Your task to perform on an android device: View the shopping cart on walmart.com. Add corsair k70 to the cart on walmart.com, then select checkout. Image 0: 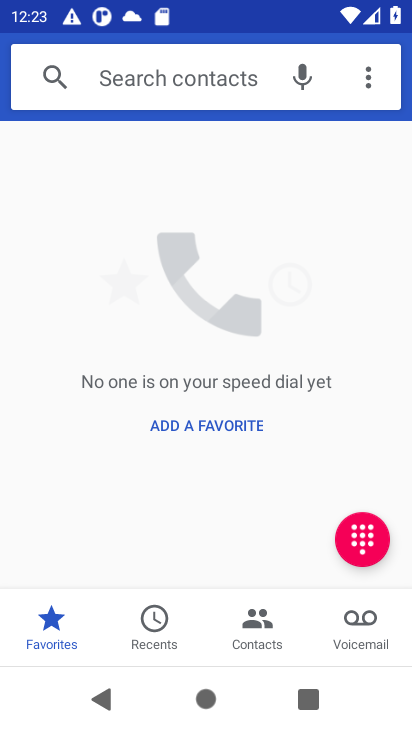
Step 0: press home button
Your task to perform on an android device: View the shopping cart on walmart.com. Add corsair k70 to the cart on walmart.com, then select checkout. Image 1: 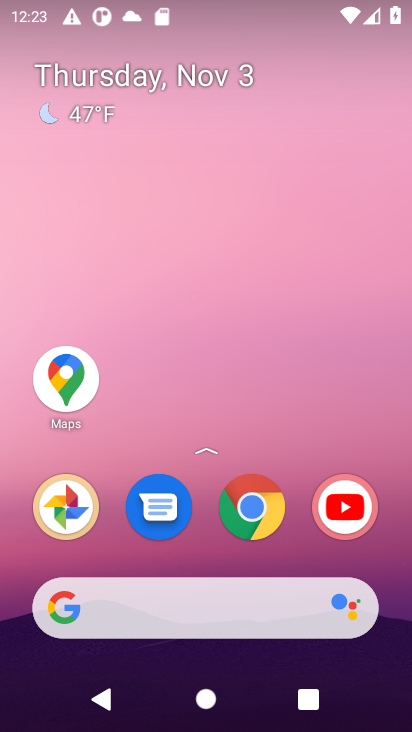
Step 1: click (276, 605)
Your task to perform on an android device: View the shopping cart on walmart.com. Add corsair k70 to the cart on walmart.com, then select checkout. Image 2: 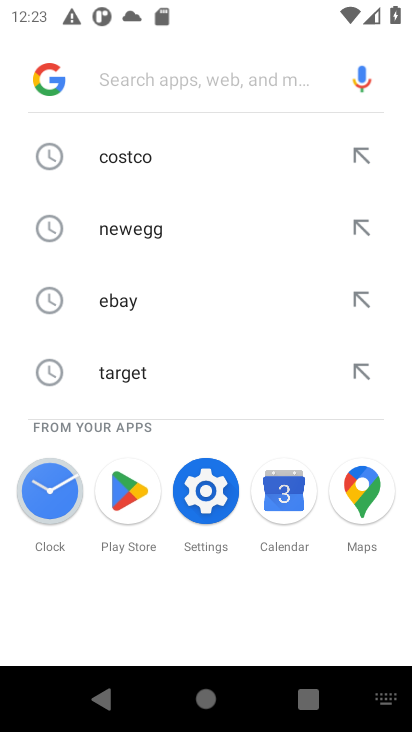
Step 2: type "walmart"
Your task to perform on an android device: View the shopping cart on walmart.com. Add corsair k70 to the cart on walmart.com, then select checkout. Image 3: 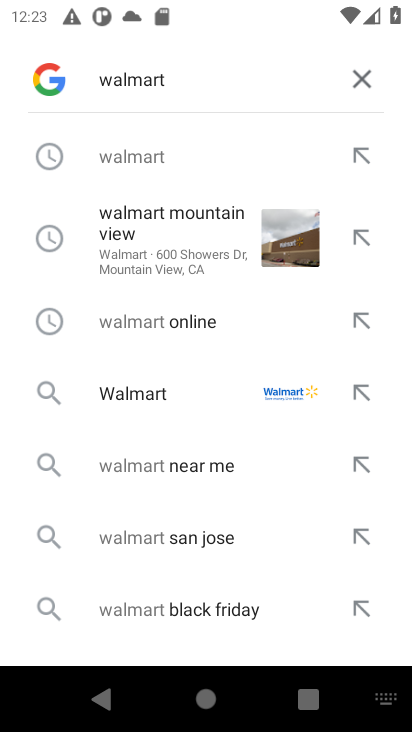
Step 3: click (214, 176)
Your task to perform on an android device: View the shopping cart on walmart.com. Add corsair k70 to the cart on walmart.com, then select checkout. Image 4: 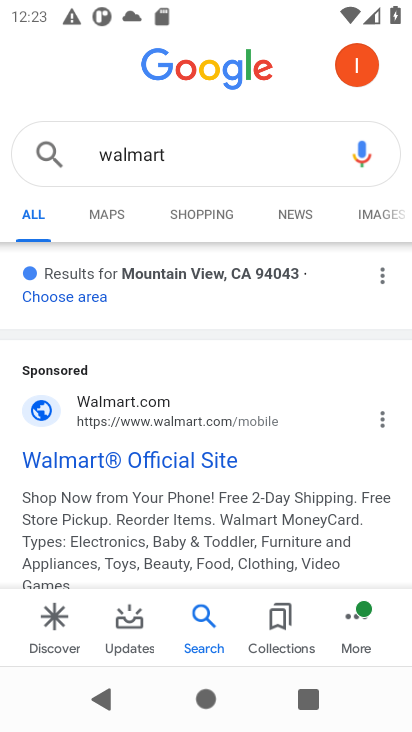
Step 4: click (118, 453)
Your task to perform on an android device: View the shopping cart on walmart.com. Add corsair k70 to the cart on walmart.com, then select checkout. Image 5: 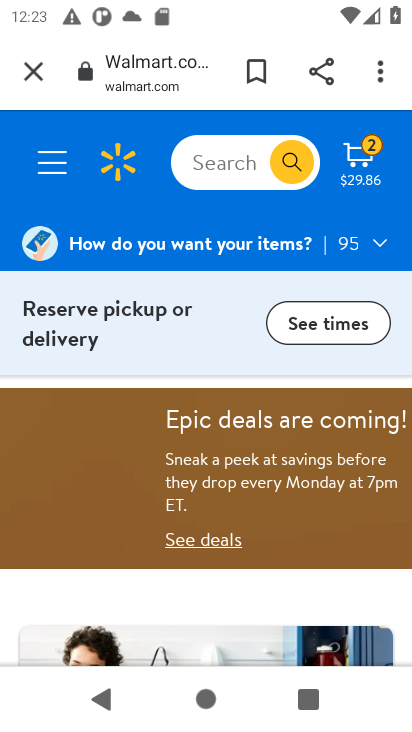
Step 5: click (197, 177)
Your task to perform on an android device: View the shopping cart on walmart.com. Add corsair k70 to the cart on walmart.com, then select checkout. Image 6: 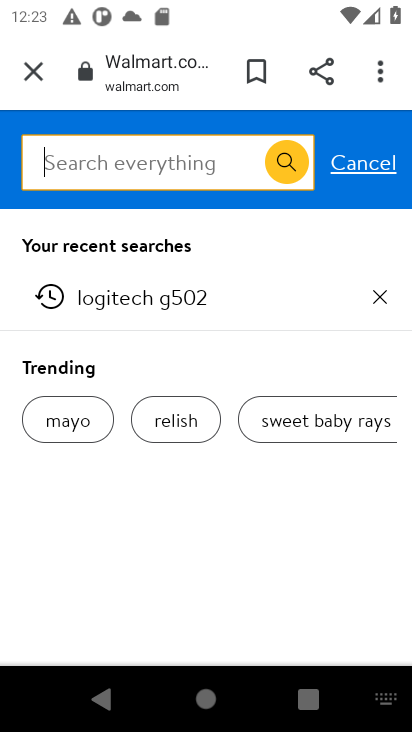
Step 6: click (173, 296)
Your task to perform on an android device: View the shopping cart on walmart.com. Add corsair k70 to the cart on walmart.com, then select checkout. Image 7: 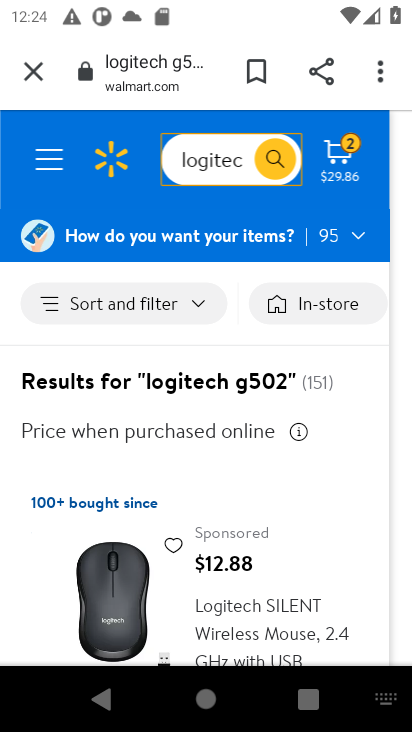
Step 7: task complete